Your task to perform on an android device: allow cookies in the chrome app Image 0: 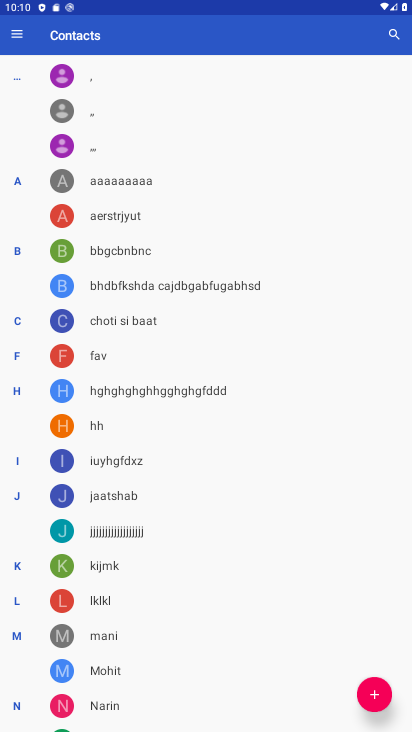
Step 0: press home button
Your task to perform on an android device: allow cookies in the chrome app Image 1: 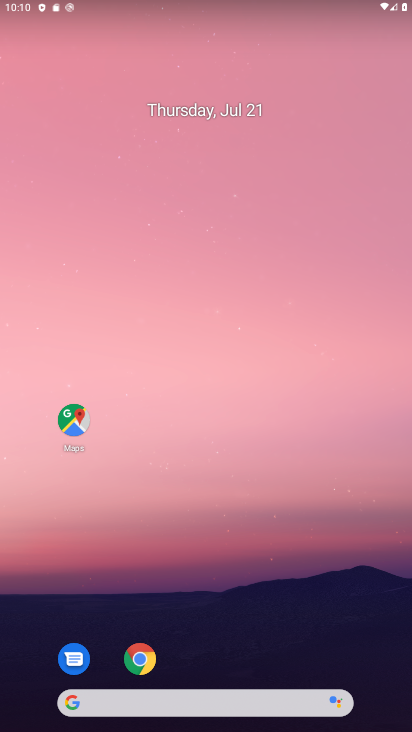
Step 1: click (138, 662)
Your task to perform on an android device: allow cookies in the chrome app Image 2: 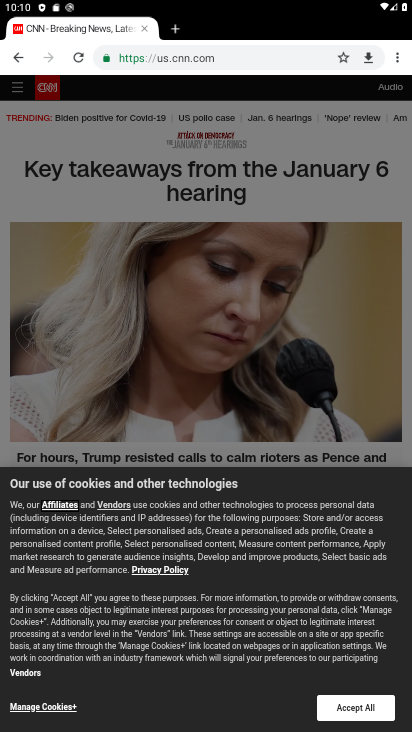
Step 2: click (398, 60)
Your task to perform on an android device: allow cookies in the chrome app Image 3: 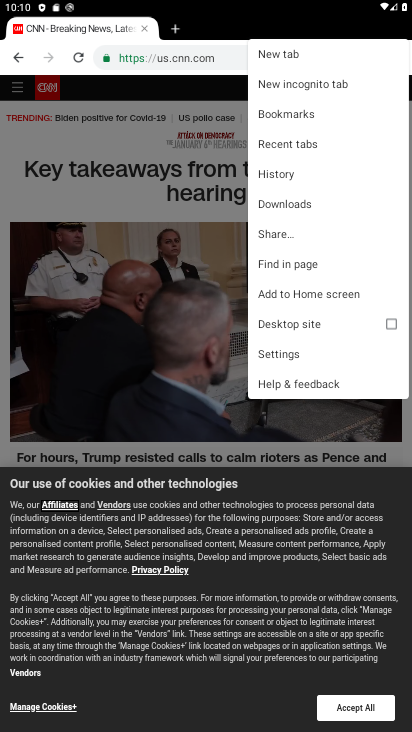
Step 3: click (273, 353)
Your task to perform on an android device: allow cookies in the chrome app Image 4: 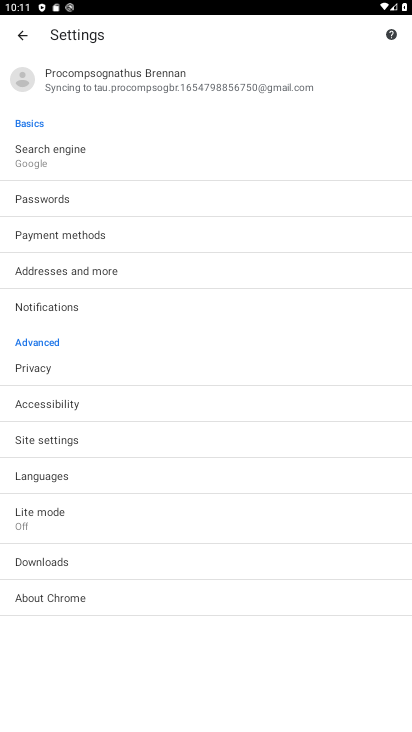
Step 4: click (36, 438)
Your task to perform on an android device: allow cookies in the chrome app Image 5: 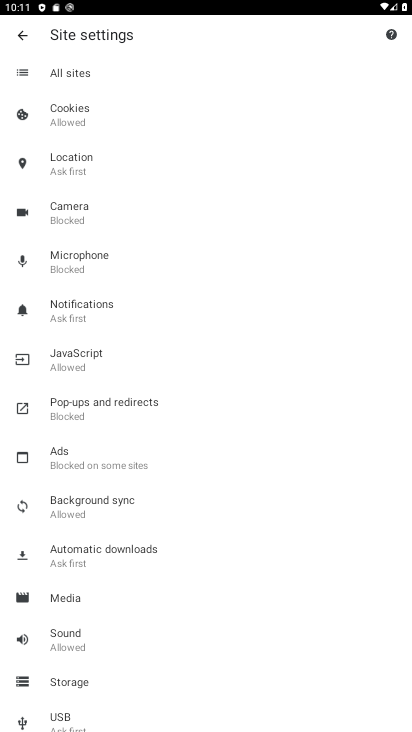
Step 5: click (59, 125)
Your task to perform on an android device: allow cookies in the chrome app Image 6: 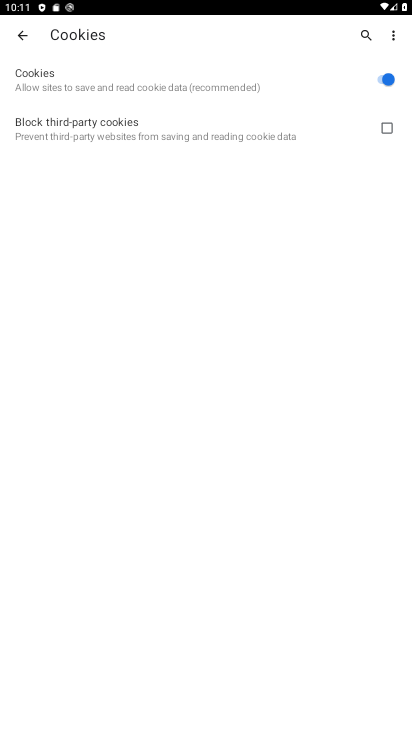
Step 6: task complete